Your task to perform on an android device: move a message to another label in the gmail app Image 0: 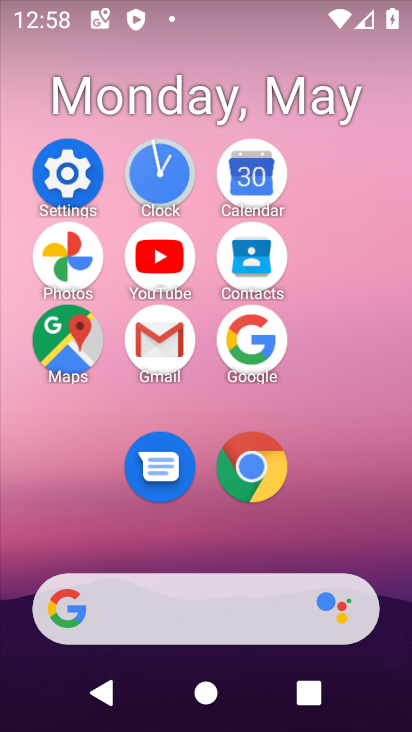
Step 0: click (158, 355)
Your task to perform on an android device: move a message to another label in the gmail app Image 1: 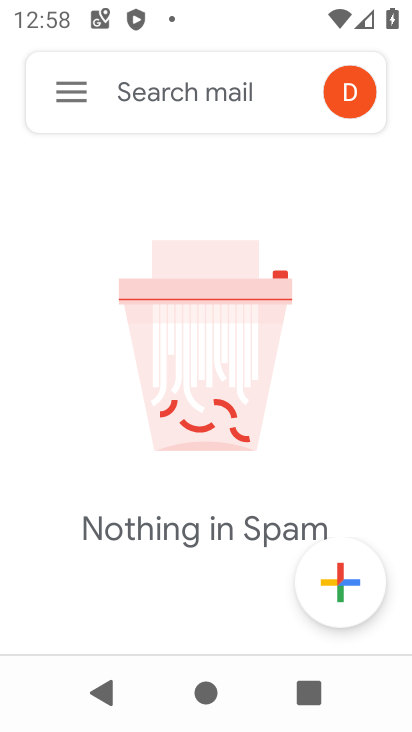
Step 1: click (81, 115)
Your task to perform on an android device: move a message to another label in the gmail app Image 2: 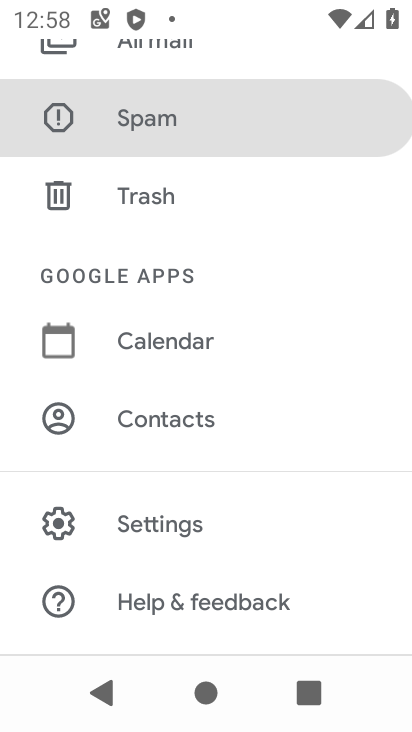
Step 2: drag from (244, 181) to (266, 595)
Your task to perform on an android device: move a message to another label in the gmail app Image 3: 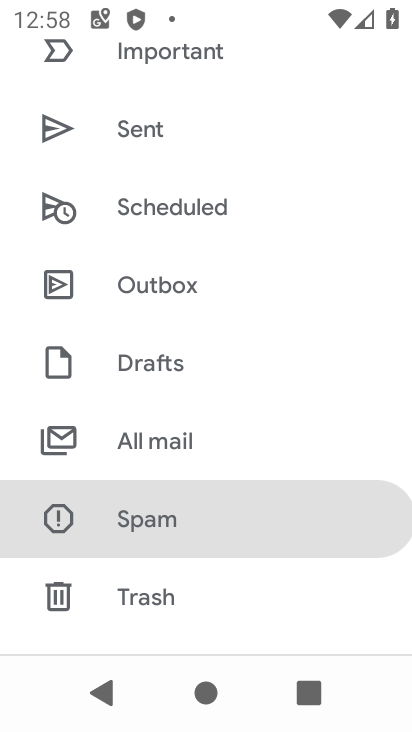
Step 3: click (161, 427)
Your task to perform on an android device: move a message to another label in the gmail app Image 4: 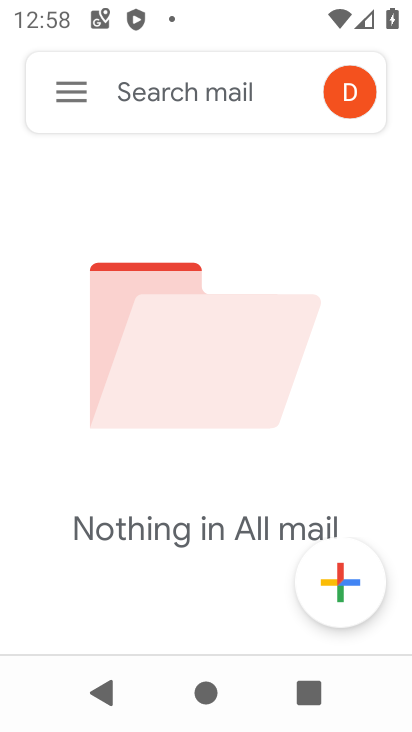
Step 4: task complete